Your task to perform on an android device: turn off data saver in the chrome app Image 0: 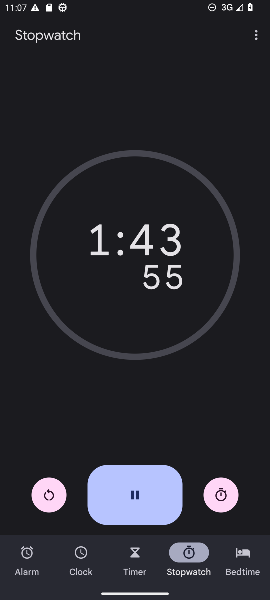
Step 0: press home button
Your task to perform on an android device: turn off data saver in the chrome app Image 1: 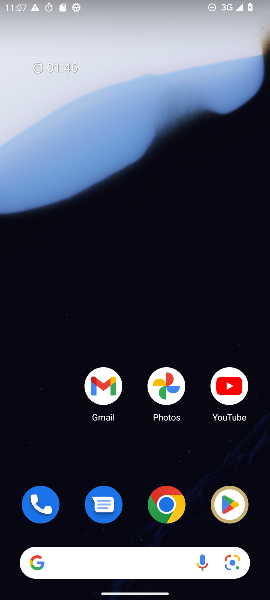
Step 1: click (164, 501)
Your task to perform on an android device: turn off data saver in the chrome app Image 2: 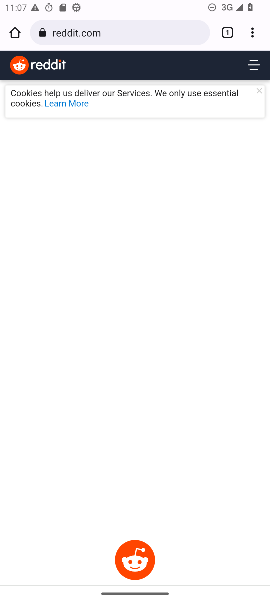
Step 2: click (253, 35)
Your task to perform on an android device: turn off data saver in the chrome app Image 3: 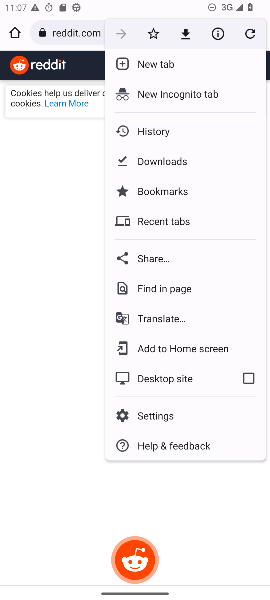
Step 3: click (158, 409)
Your task to perform on an android device: turn off data saver in the chrome app Image 4: 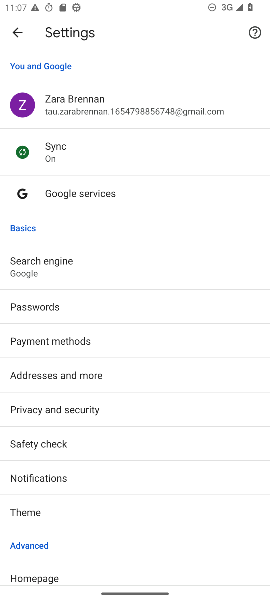
Step 4: drag from (64, 489) to (71, 260)
Your task to perform on an android device: turn off data saver in the chrome app Image 5: 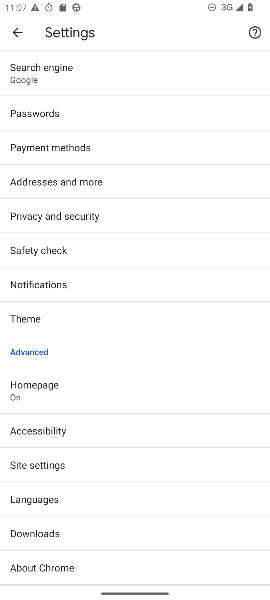
Step 5: drag from (46, 481) to (68, 367)
Your task to perform on an android device: turn off data saver in the chrome app Image 6: 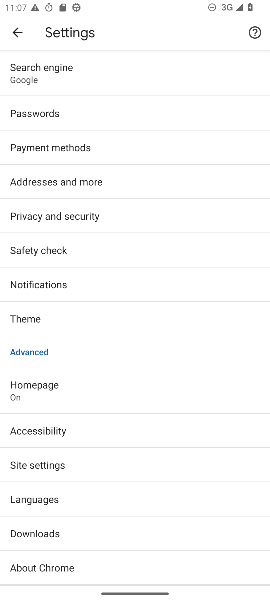
Step 6: drag from (41, 527) to (57, 369)
Your task to perform on an android device: turn off data saver in the chrome app Image 7: 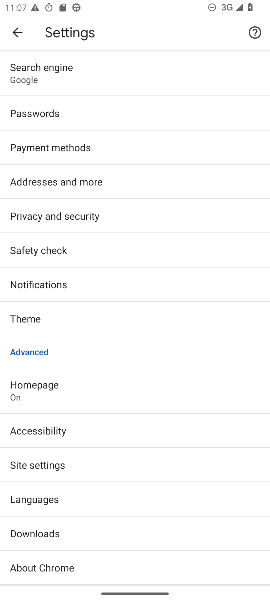
Step 7: drag from (53, 516) to (66, 407)
Your task to perform on an android device: turn off data saver in the chrome app Image 8: 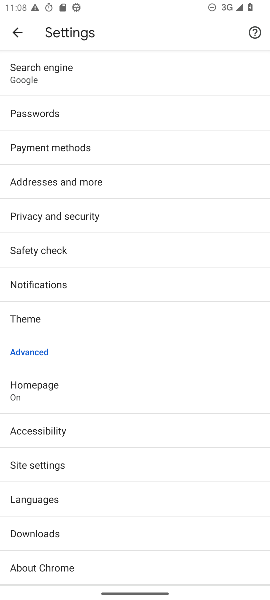
Step 8: click (45, 468)
Your task to perform on an android device: turn off data saver in the chrome app Image 9: 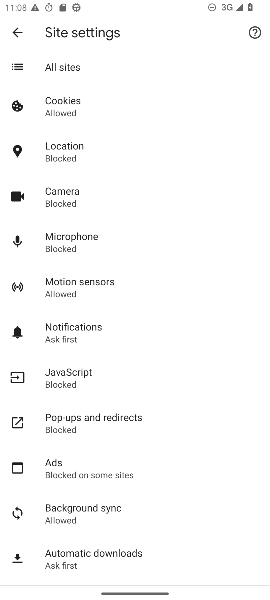
Step 9: task complete